Your task to perform on an android device: What's the weather today? Image 0: 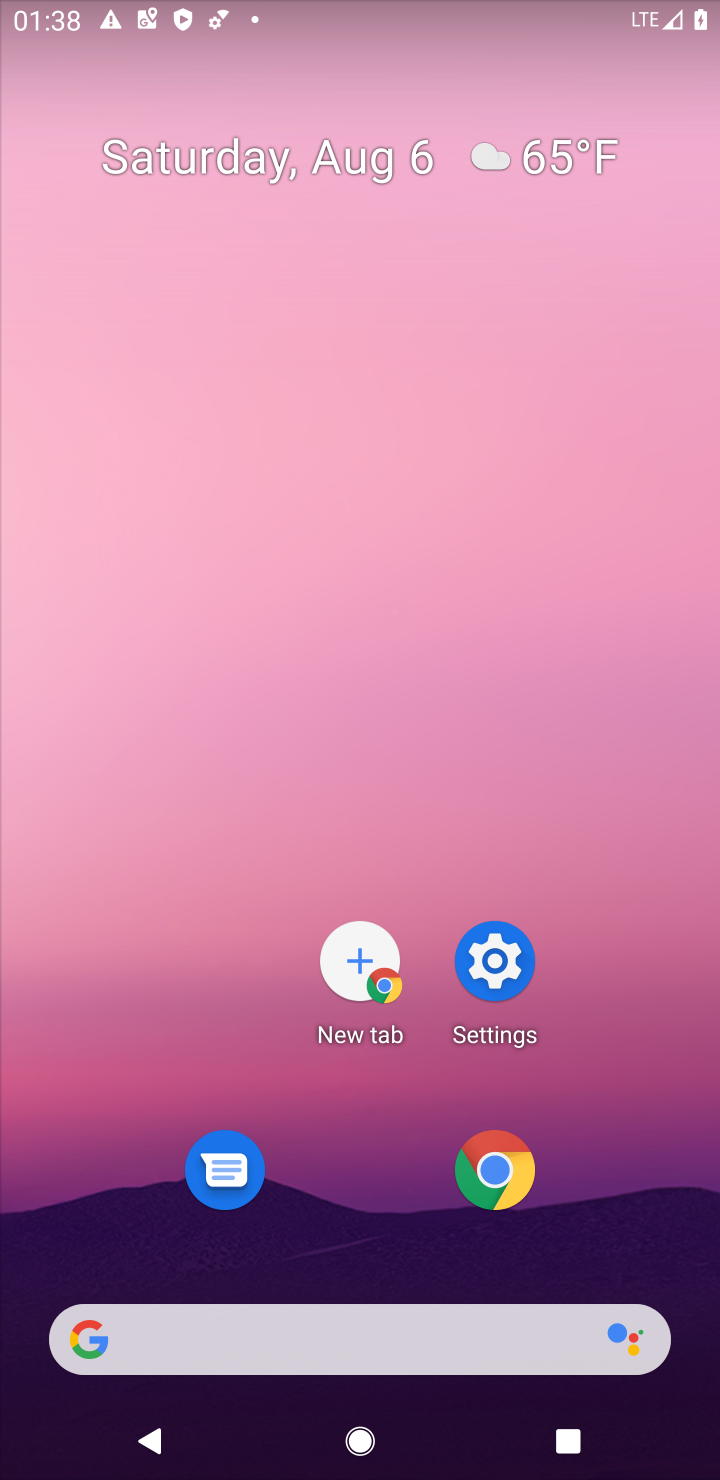
Step 0: click (491, 1172)
Your task to perform on an android device: What's the weather today? Image 1: 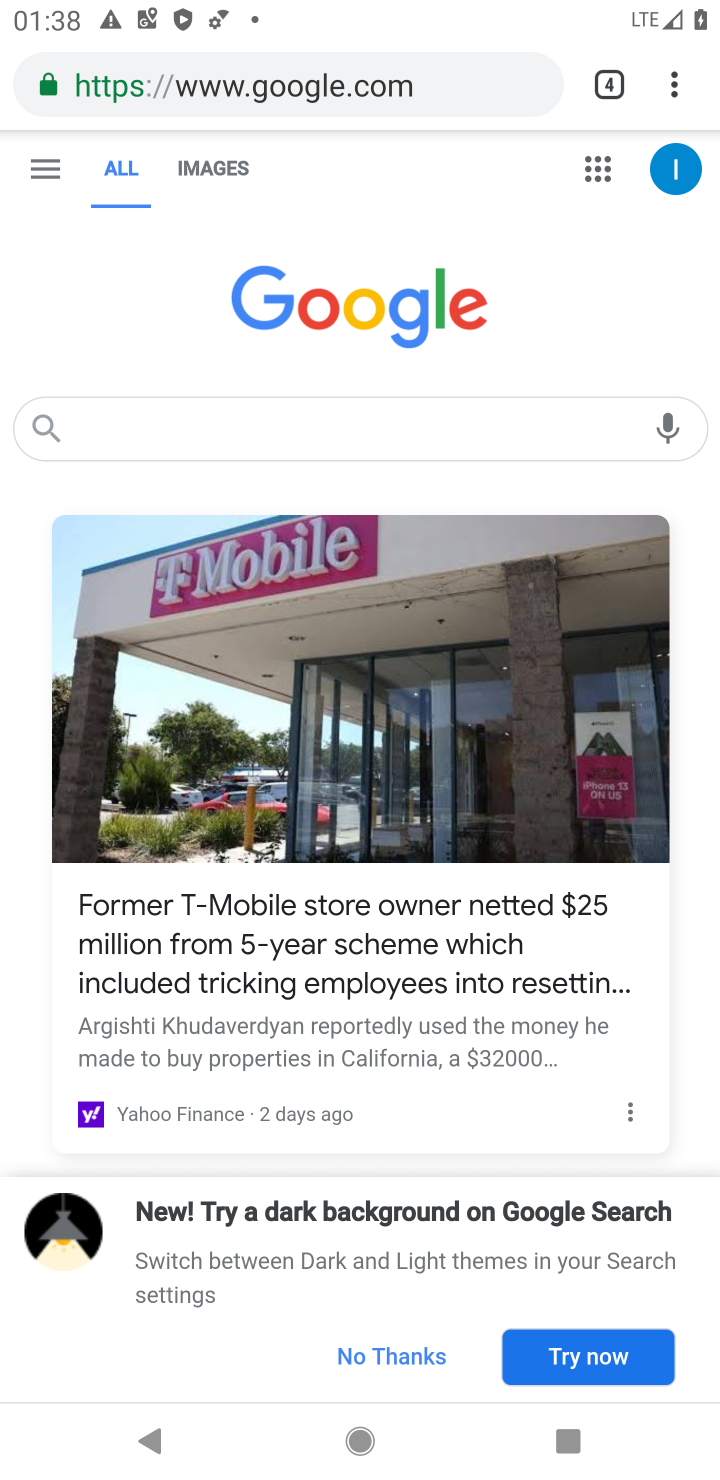
Step 1: click (338, 409)
Your task to perform on an android device: What's the weather today? Image 2: 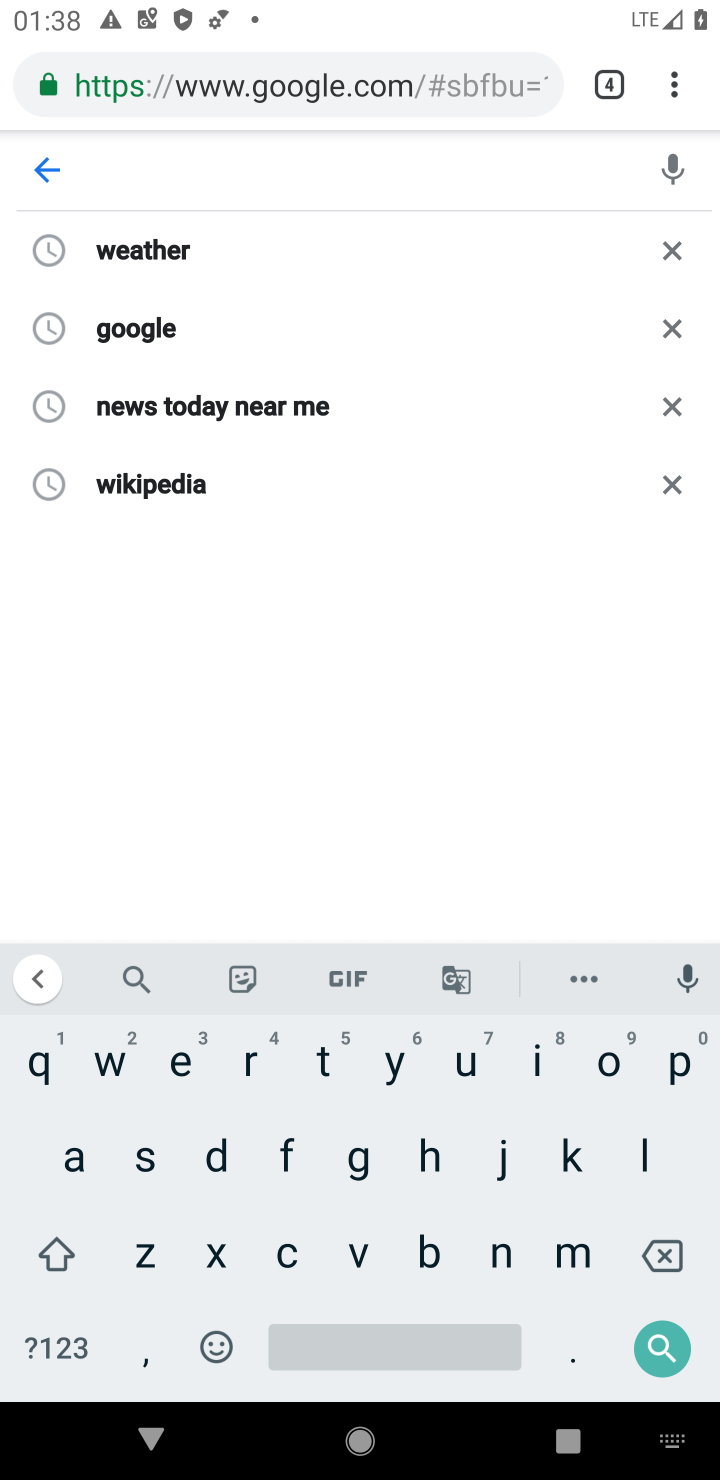
Step 2: click (166, 252)
Your task to perform on an android device: What's the weather today? Image 3: 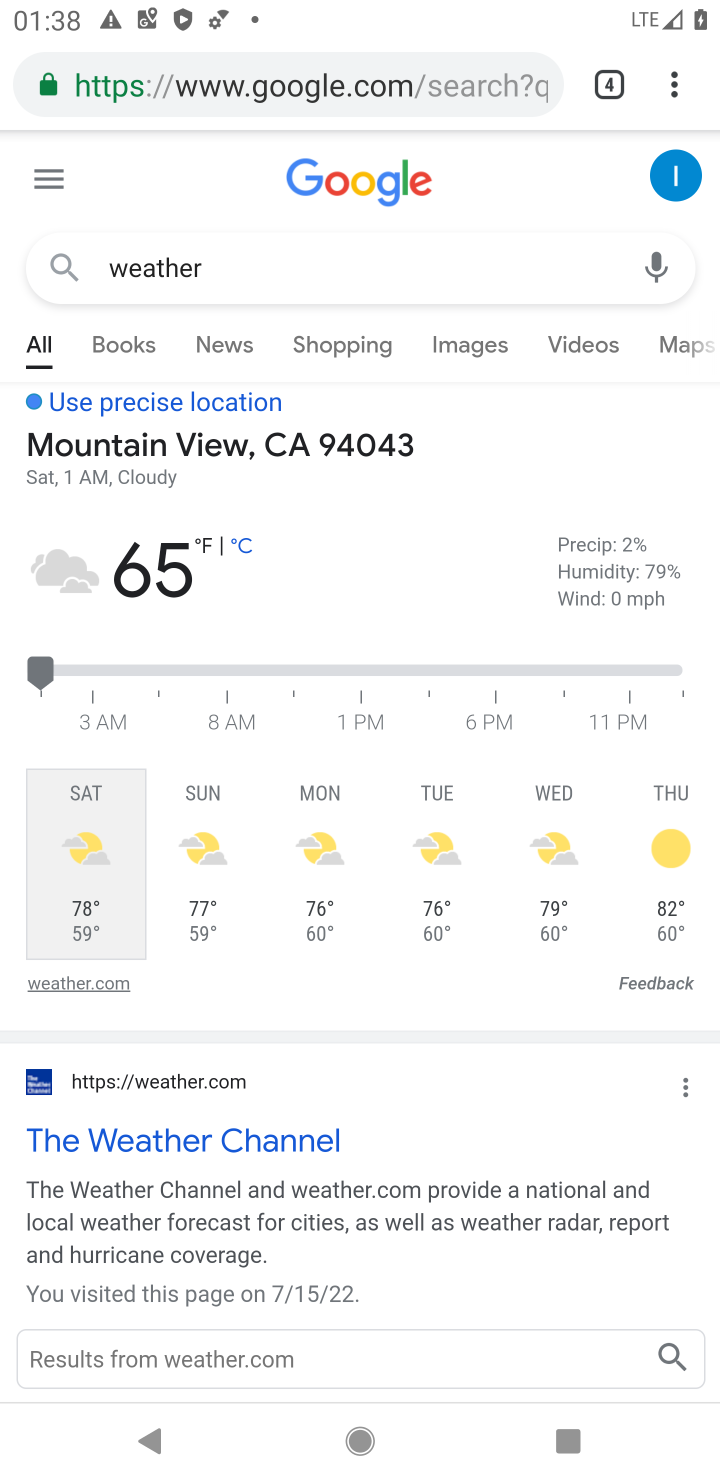
Step 3: task complete